Your task to perform on an android device: turn on bluetooth scan Image 0: 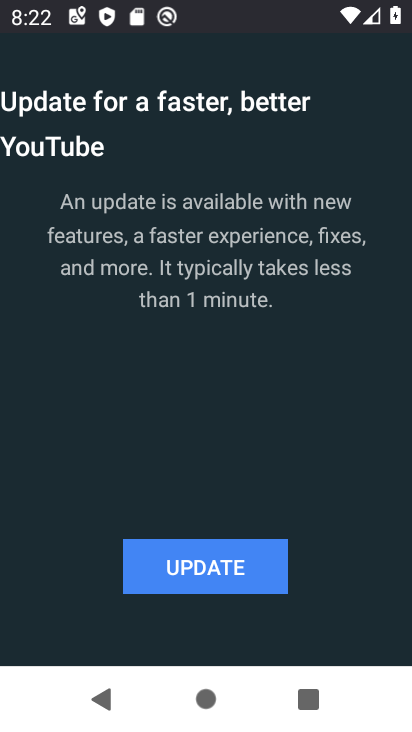
Step 0: press home button
Your task to perform on an android device: turn on bluetooth scan Image 1: 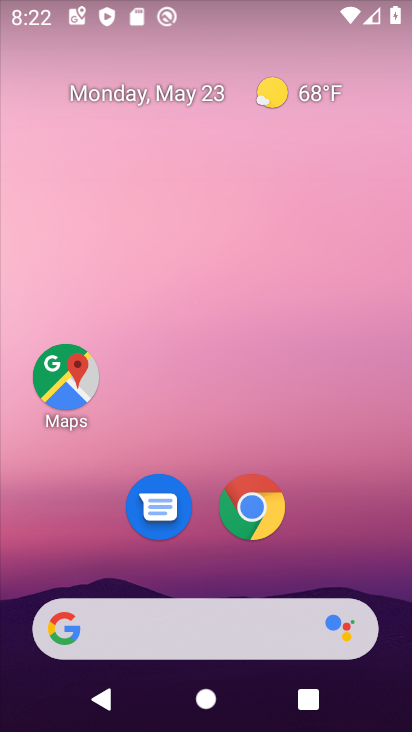
Step 1: drag from (201, 540) to (221, 110)
Your task to perform on an android device: turn on bluetooth scan Image 2: 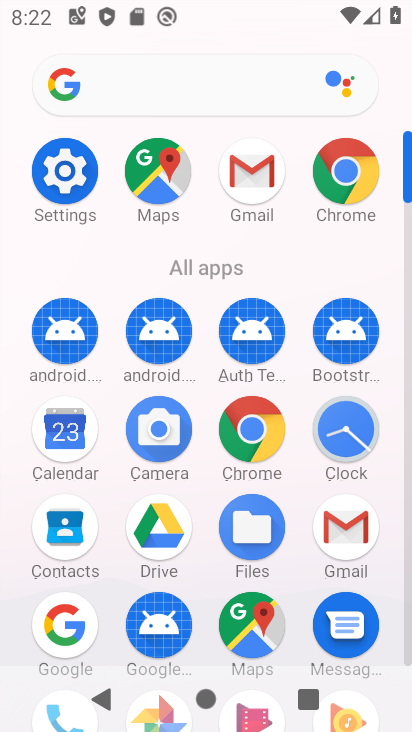
Step 2: click (64, 181)
Your task to perform on an android device: turn on bluetooth scan Image 3: 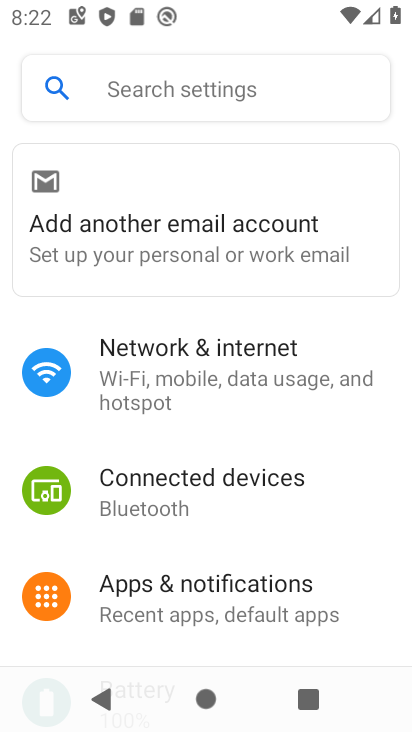
Step 3: drag from (198, 530) to (252, 221)
Your task to perform on an android device: turn on bluetooth scan Image 4: 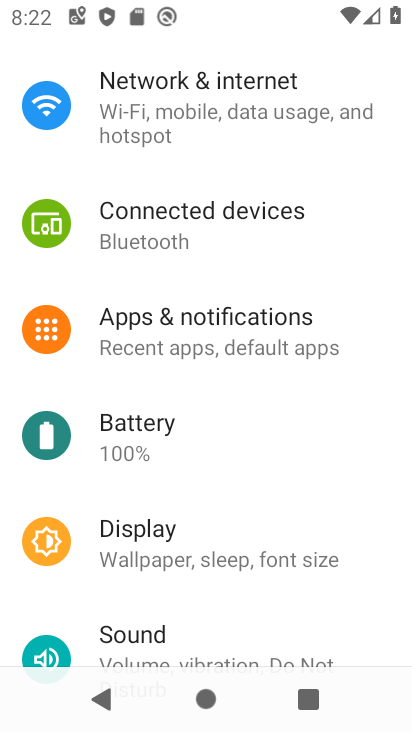
Step 4: click (225, 248)
Your task to perform on an android device: turn on bluetooth scan Image 5: 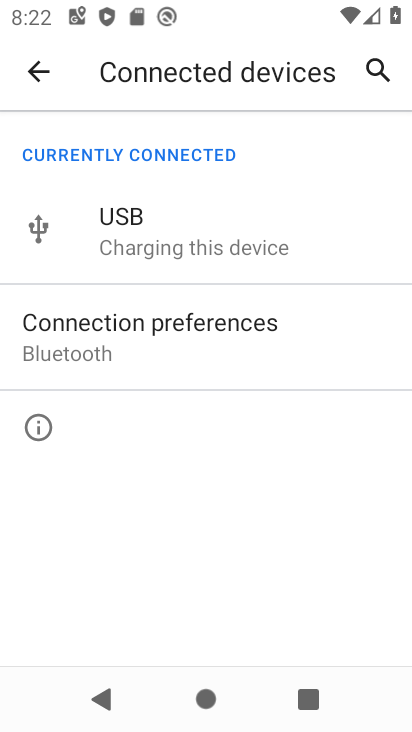
Step 5: click (163, 313)
Your task to perform on an android device: turn on bluetooth scan Image 6: 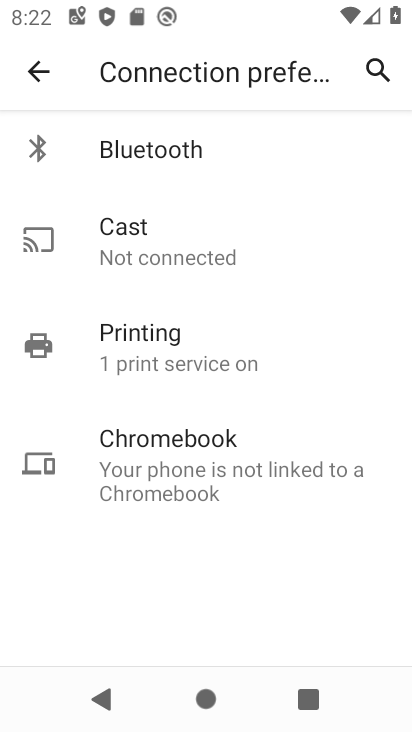
Step 6: click (212, 164)
Your task to perform on an android device: turn on bluetooth scan Image 7: 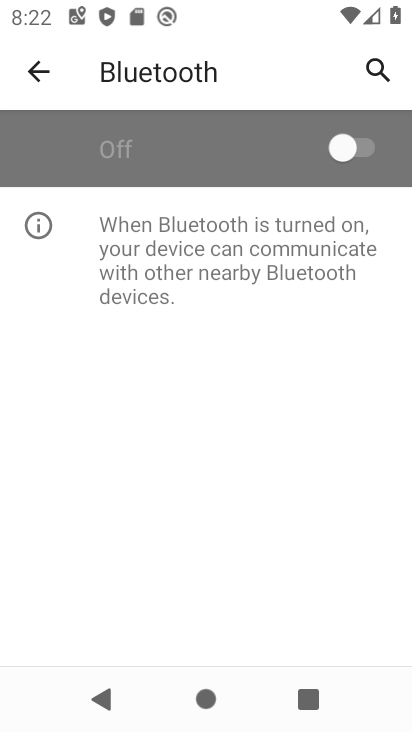
Step 7: click (348, 159)
Your task to perform on an android device: turn on bluetooth scan Image 8: 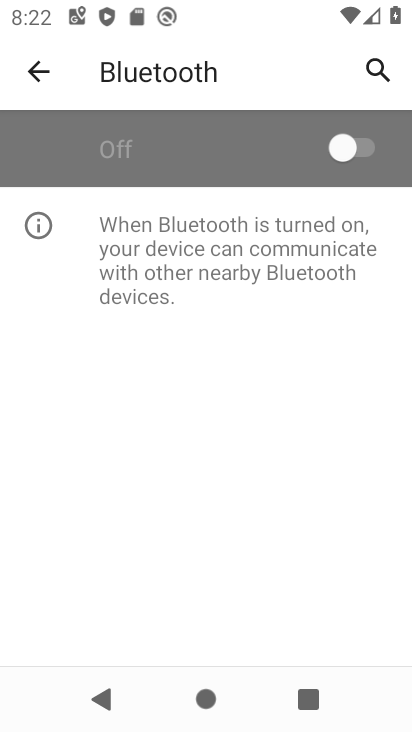
Step 8: click (348, 159)
Your task to perform on an android device: turn on bluetooth scan Image 9: 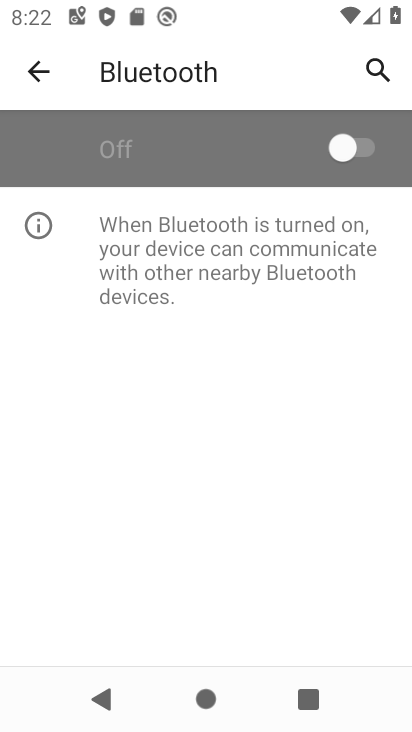
Step 9: click (348, 159)
Your task to perform on an android device: turn on bluetooth scan Image 10: 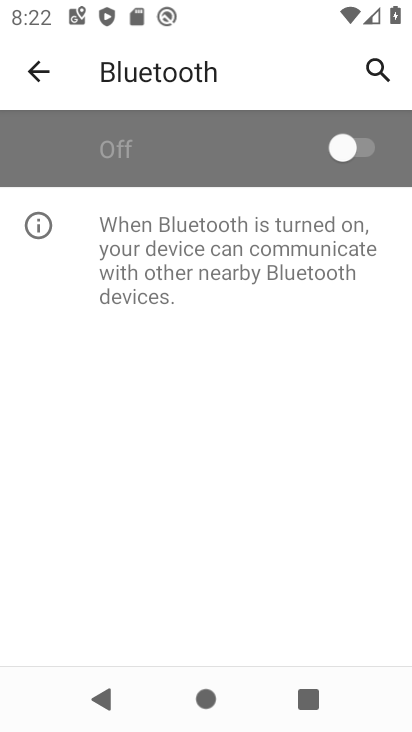
Step 10: task complete